Your task to perform on an android device: turn off location Image 0: 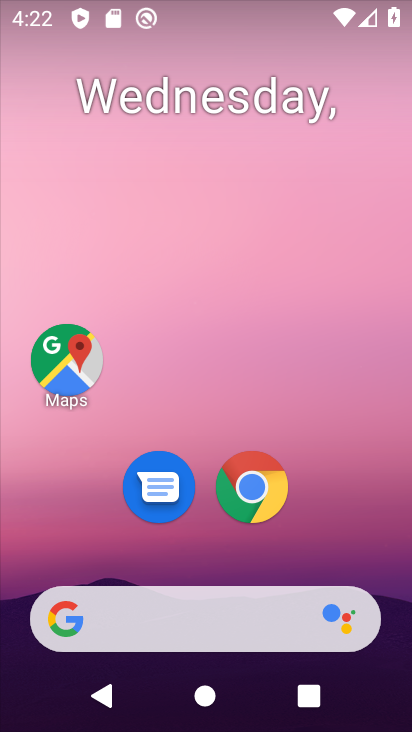
Step 0: drag from (392, 413) to (338, 0)
Your task to perform on an android device: turn off location Image 1: 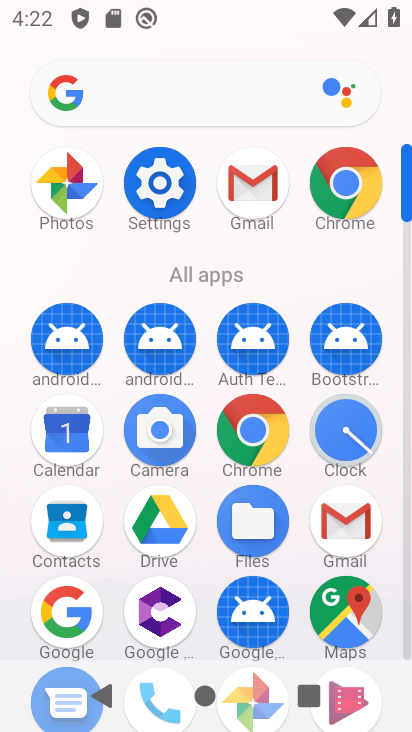
Step 1: click (170, 183)
Your task to perform on an android device: turn off location Image 2: 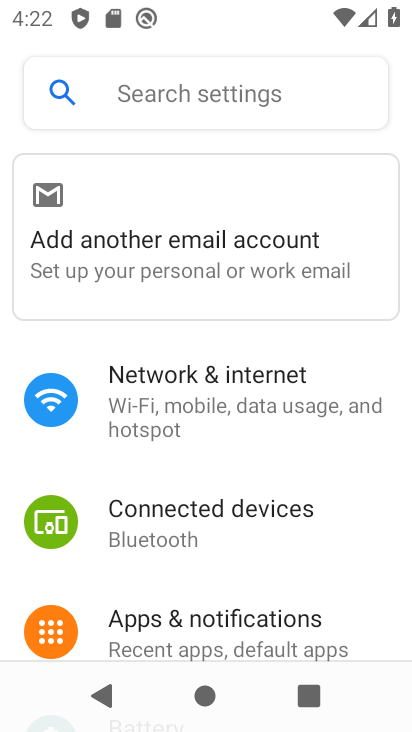
Step 2: drag from (245, 495) to (289, 0)
Your task to perform on an android device: turn off location Image 3: 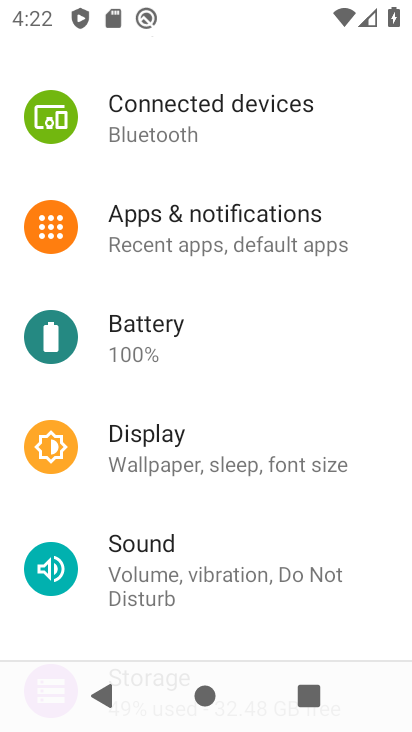
Step 3: drag from (288, 492) to (320, 178)
Your task to perform on an android device: turn off location Image 4: 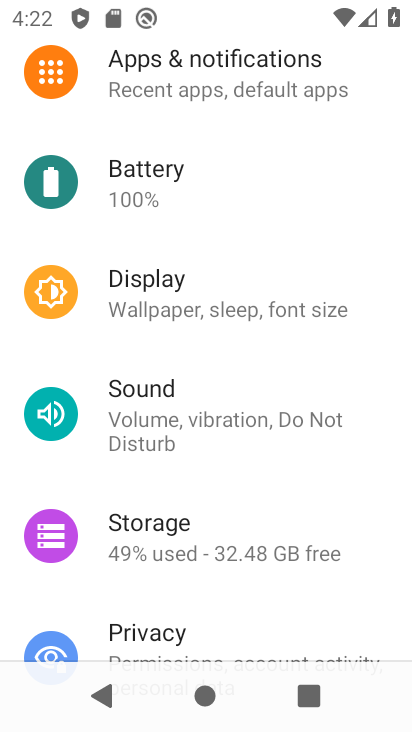
Step 4: drag from (235, 437) to (256, 91)
Your task to perform on an android device: turn off location Image 5: 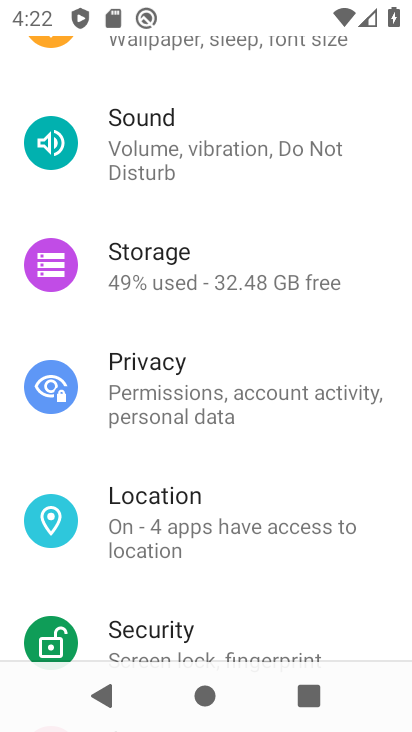
Step 5: click (137, 503)
Your task to perform on an android device: turn off location Image 6: 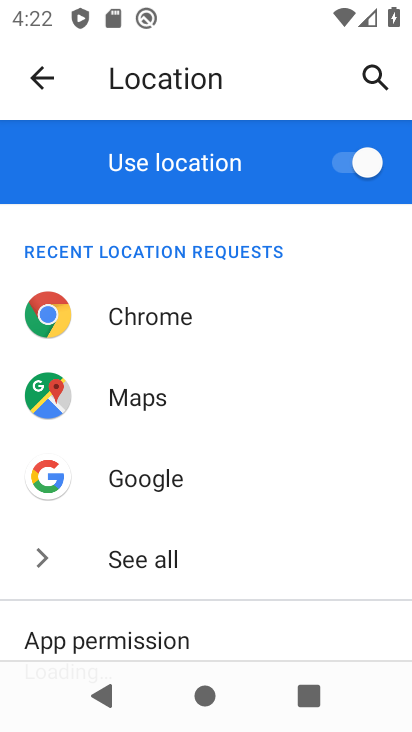
Step 6: click (360, 157)
Your task to perform on an android device: turn off location Image 7: 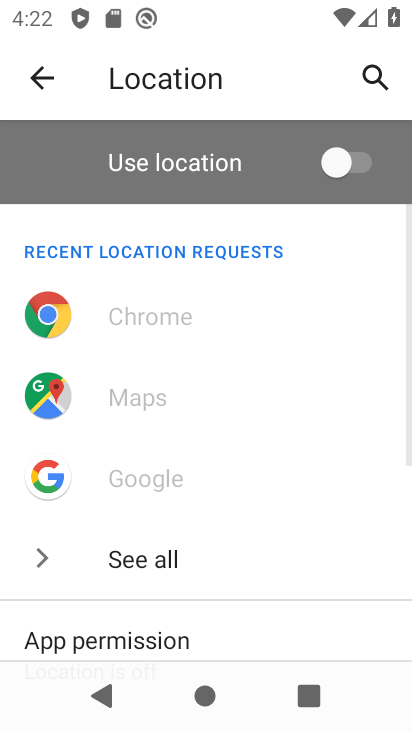
Step 7: task complete